Your task to perform on an android device: set the timer Image 0: 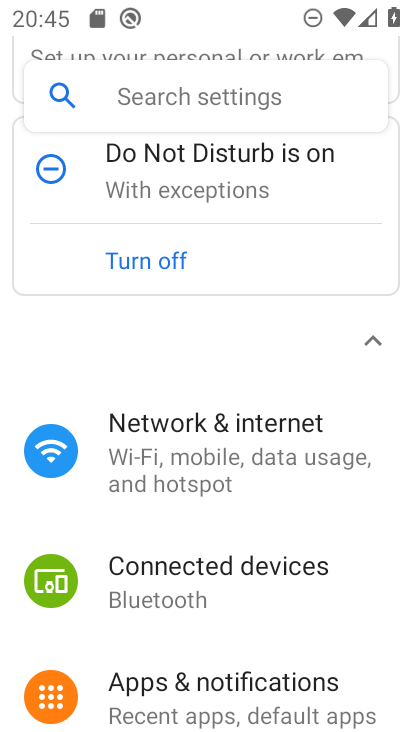
Step 0: press home button
Your task to perform on an android device: set the timer Image 1: 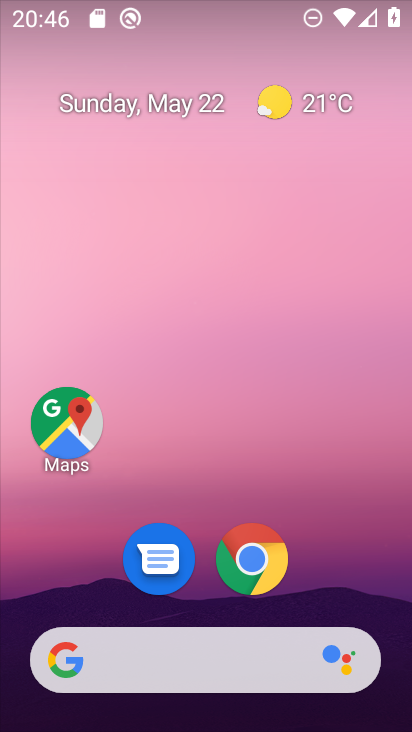
Step 1: click (202, 710)
Your task to perform on an android device: set the timer Image 2: 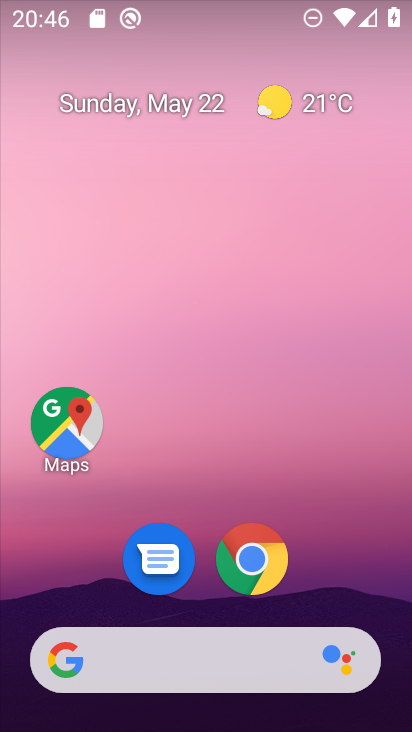
Step 2: drag from (201, 678) to (209, 121)
Your task to perform on an android device: set the timer Image 3: 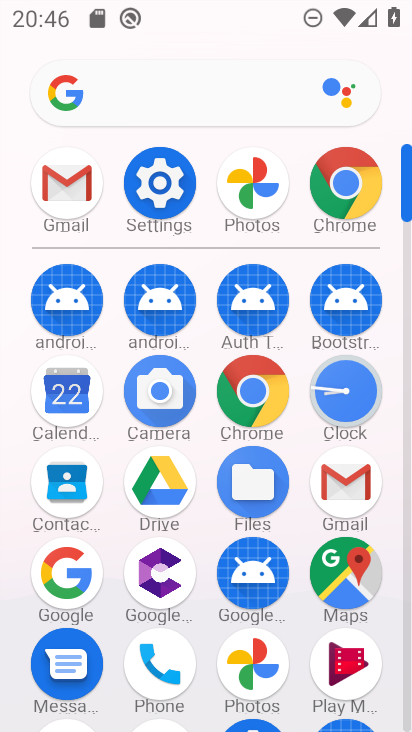
Step 3: click (374, 396)
Your task to perform on an android device: set the timer Image 4: 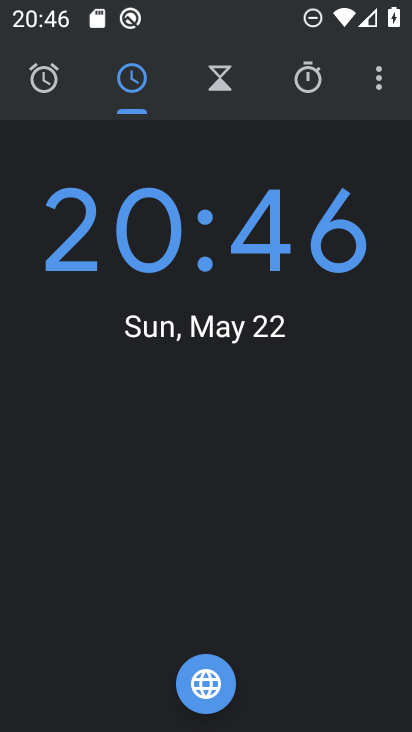
Step 4: click (217, 98)
Your task to perform on an android device: set the timer Image 5: 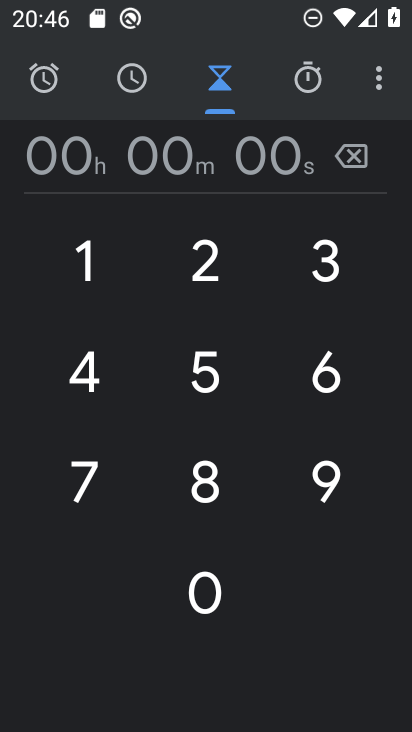
Step 5: click (220, 366)
Your task to perform on an android device: set the timer Image 6: 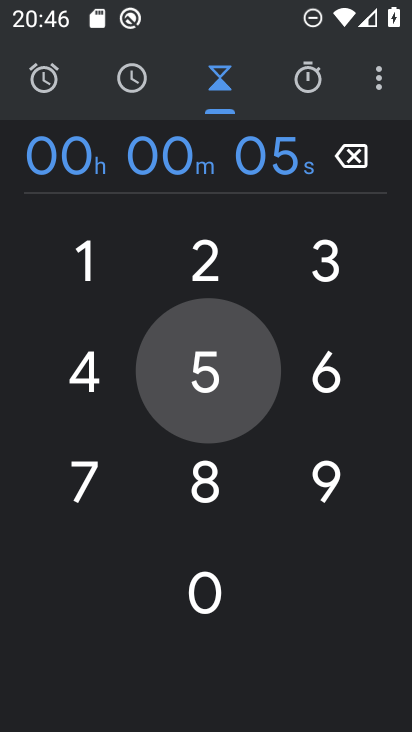
Step 6: click (96, 383)
Your task to perform on an android device: set the timer Image 7: 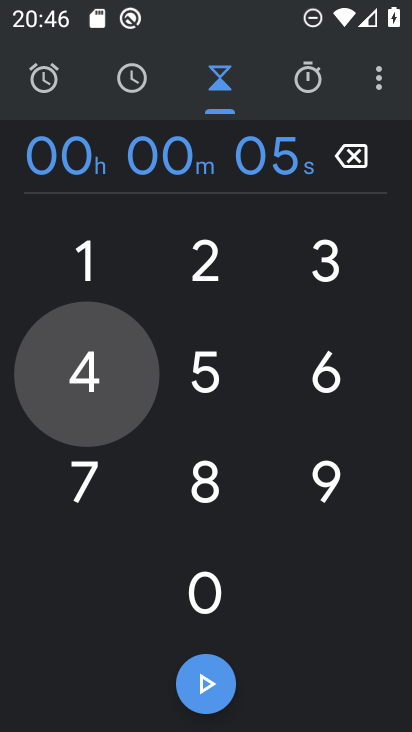
Step 7: click (87, 270)
Your task to perform on an android device: set the timer Image 8: 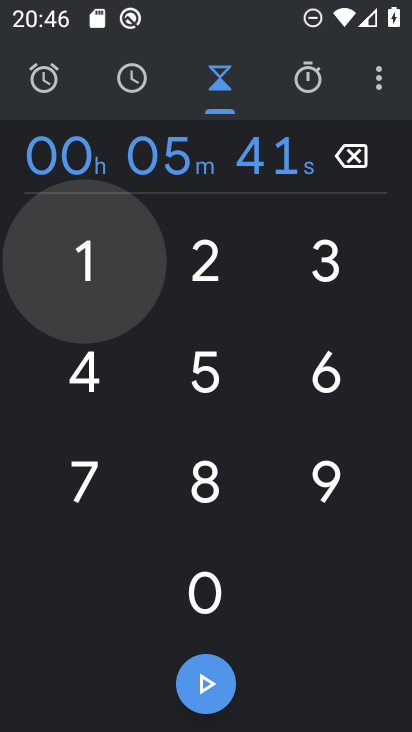
Step 8: click (97, 472)
Your task to perform on an android device: set the timer Image 9: 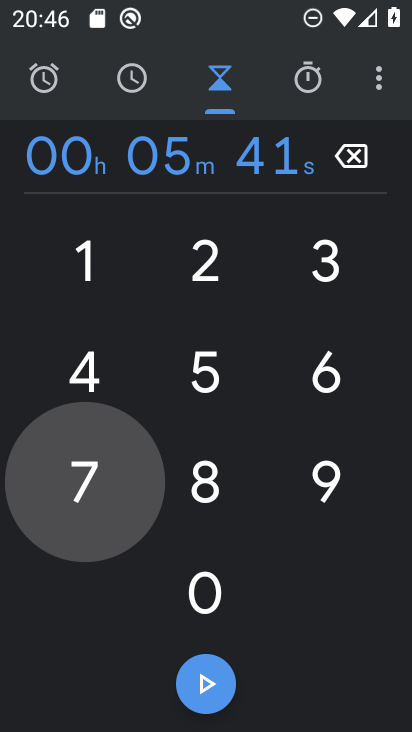
Step 9: click (272, 456)
Your task to perform on an android device: set the timer Image 10: 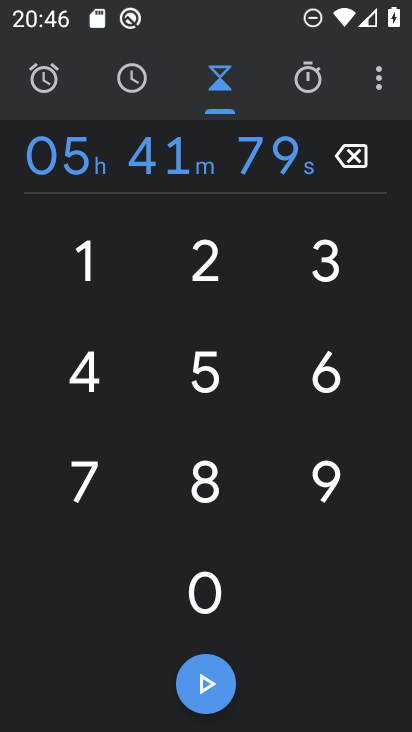
Step 10: task complete